Your task to perform on an android device: Go to eBay Image 0: 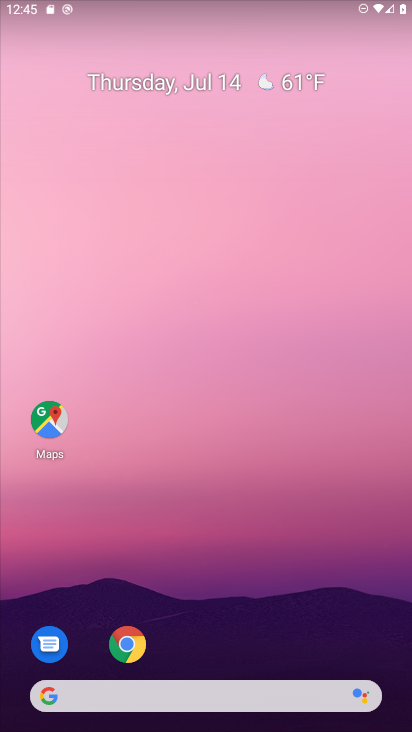
Step 0: drag from (266, 635) to (230, 91)
Your task to perform on an android device: Go to eBay Image 1: 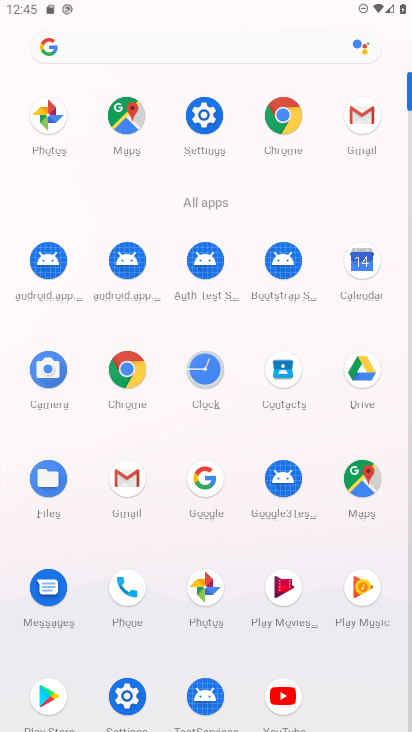
Step 1: click (284, 110)
Your task to perform on an android device: Go to eBay Image 2: 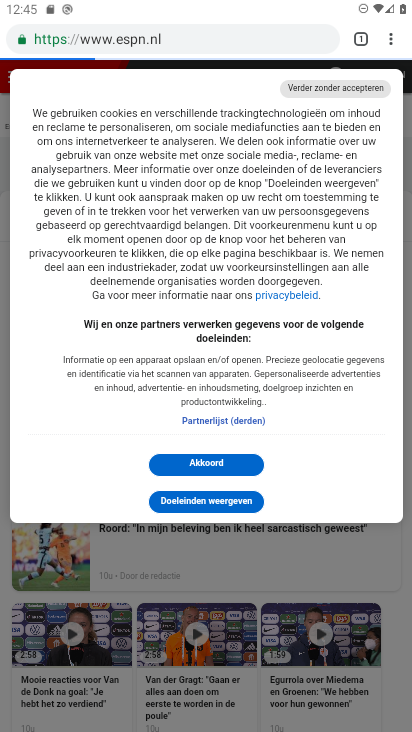
Step 2: click (150, 42)
Your task to perform on an android device: Go to eBay Image 3: 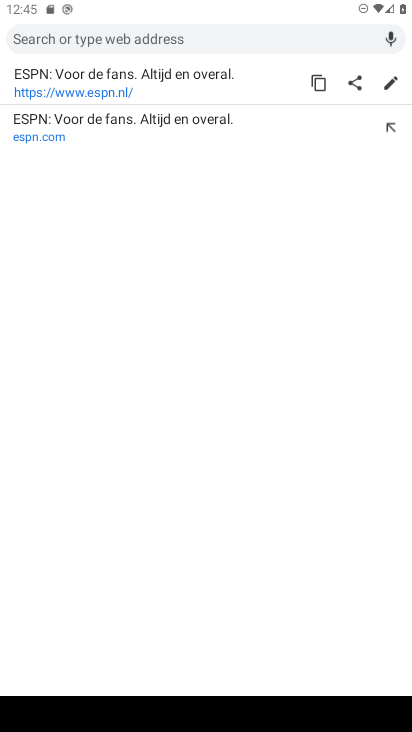
Step 3: type "ebay"
Your task to perform on an android device: Go to eBay Image 4: 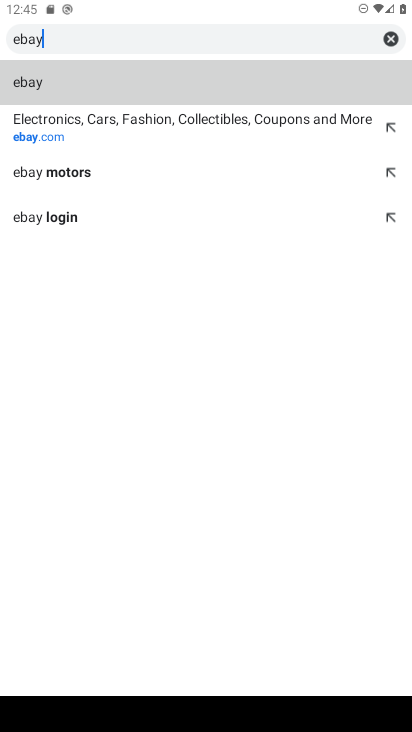
Step 4: click (48, 144)
Your task to perform on an android device: Go to eBay Image 5: 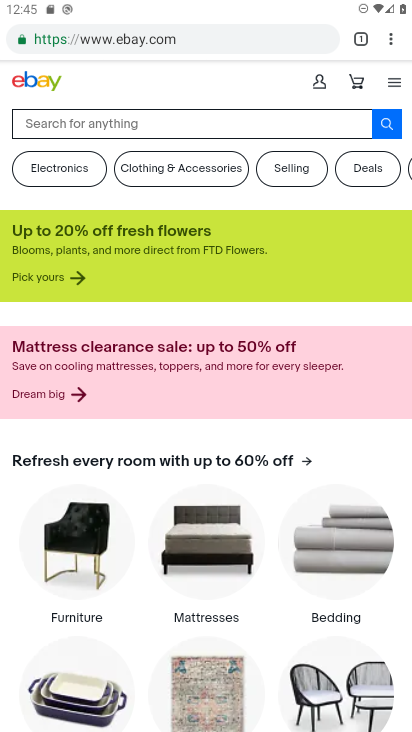
Step 5: task complete